Your task to perform on an android device: Show the shopping cart on bestbuy. Add "lg ultragear" to the cart on bestbuy Image 0: 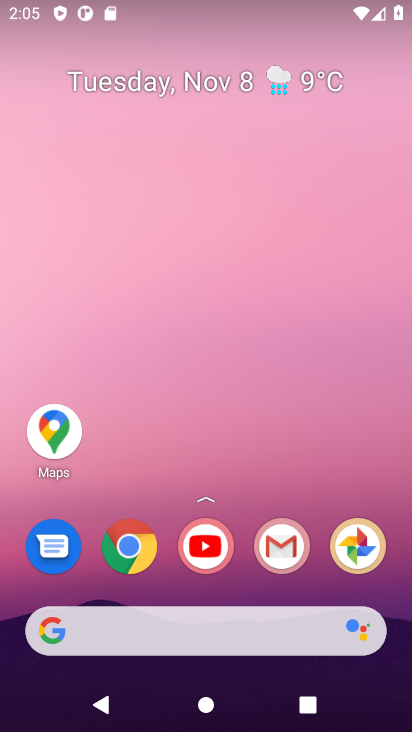
Step 0: click (129, 551)
Your task to perform on an android device: Show the shopping cart on bestbuy. Add "lg ultragear" to the cart on bestbuy Image 1: 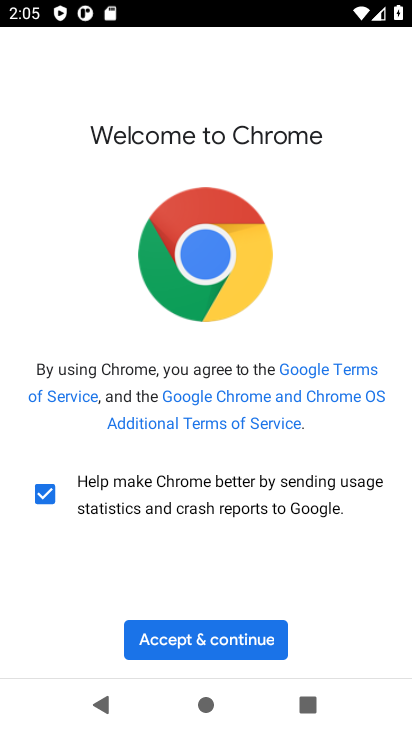
Step 1: click (236, 638)
Your task to perform on an android device: Show the shopping cart on bestbuy. Add "lg ultragear" to the cart on bestbuy Image 2: 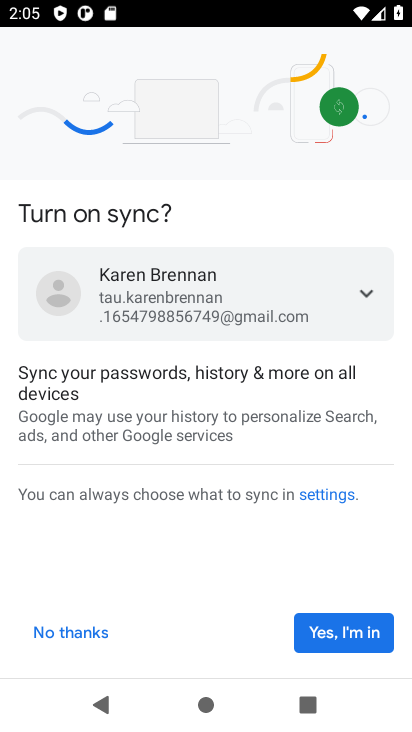
Step 2: click (338, 630)
Your task to perform on an android device: Show the shopping cart on bestbuy. Add "lg ultragear" to the cart on bestbuy Image 3: 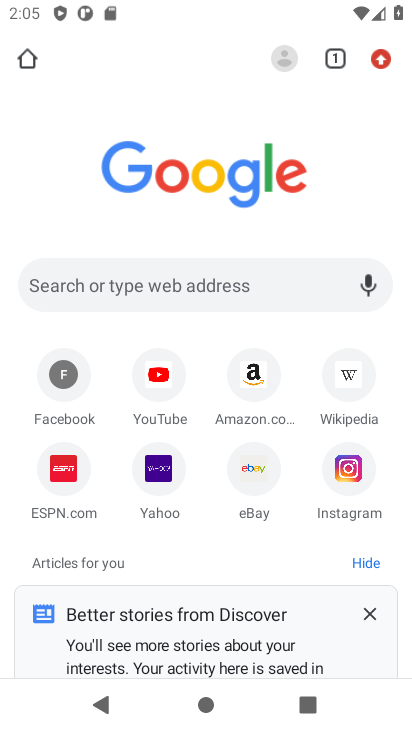
Step 3: click (280, 289)
Your task to perform on an android device: Show the shopping cart on bestbuy. Add "lg ultragear" to the cart on bestbuy Image 4: 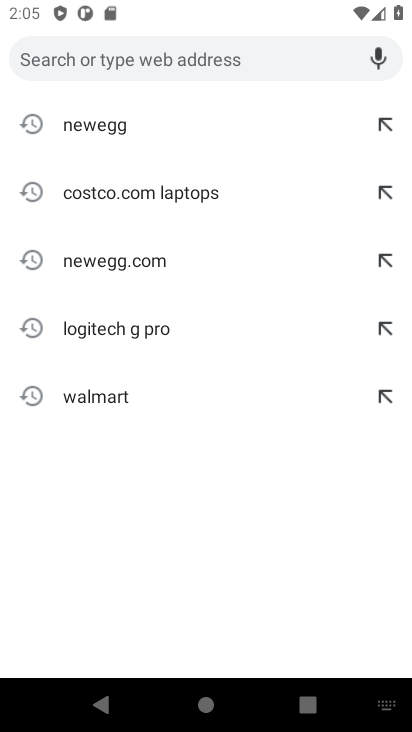
Step 4: type "bestbuy"
Your task to perform on an android device: Show the shopping cart on bestbuy. Add "lg ultragear" to the cart on bestbuy Image 5: 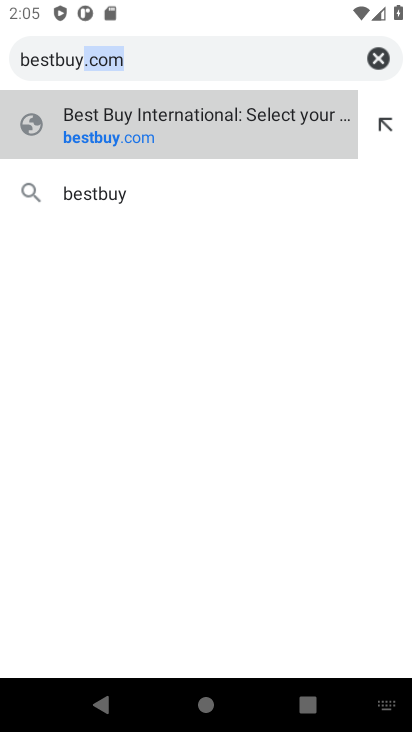
Step 5: click (114, 111)
Your task to perform on an android device: Show the shopping cart on bestbuy. Add "lg ultragear" to the cart on bestbuy Image 6: 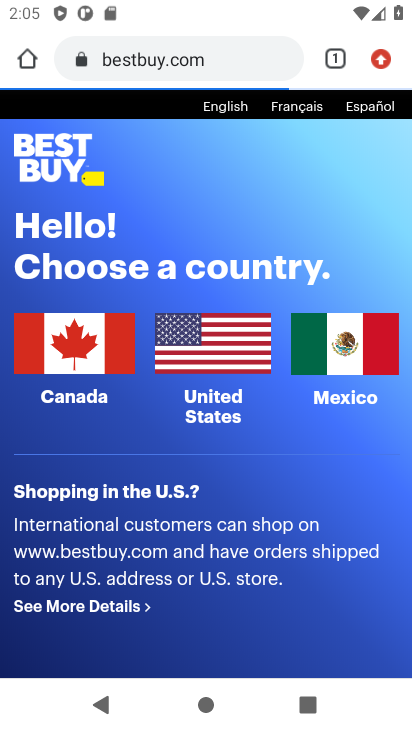
Step 6: click (236, 350)
Your task to perform on an android device: Show the shopping cart on bestbuy. Add "lg ultragear" to the cart on bestbuy Image 7: 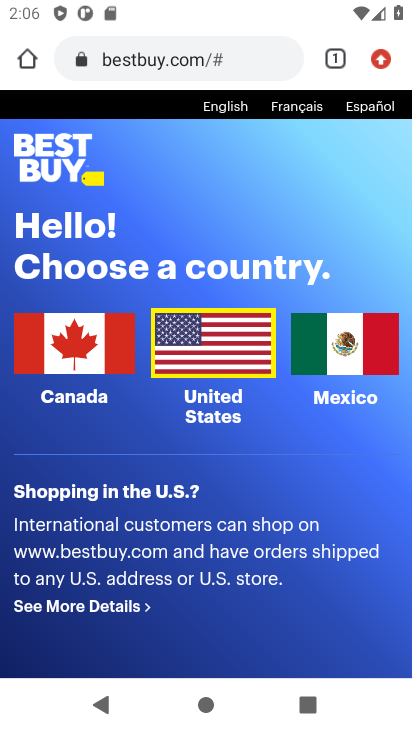
Step 7: click (177, 333)
Your task to perform on an android device: Show the shopping cart on bestbuy. Add "lg ultragear" to the cart on bestbuy Image 8: 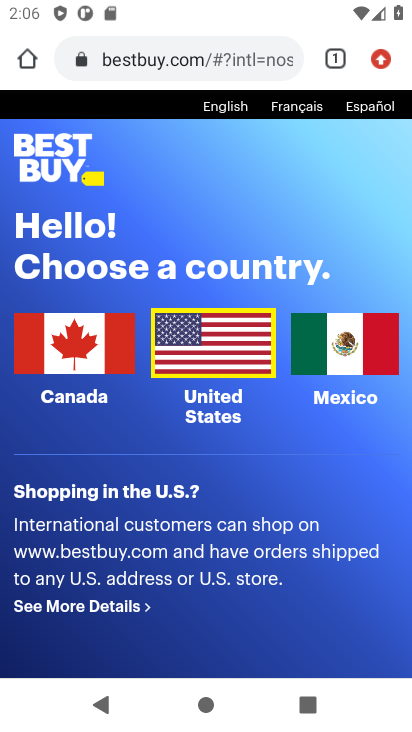
Step 8: click (226, 345)
Your task to perform on an android device: Show the shopping cart on bestbuy. Add "lg ultragear" to the cart on bestbuy Image 9: 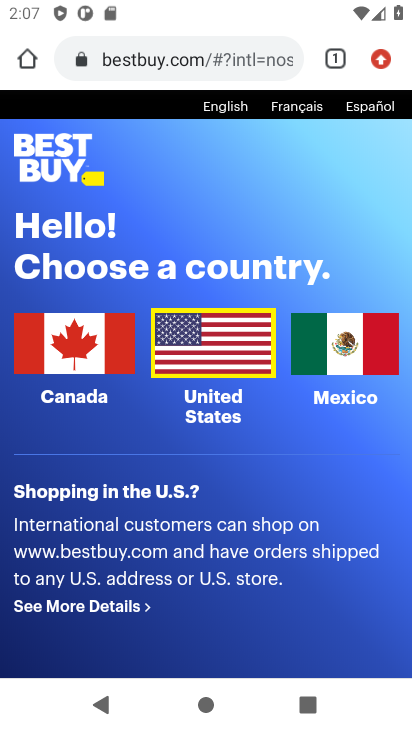
Step 9: click (225, 330)
Your task to perform on an android device: Show the shopping cart on bestbuy. Add "lg ultragear" to the cart on bestbuy Image 10: 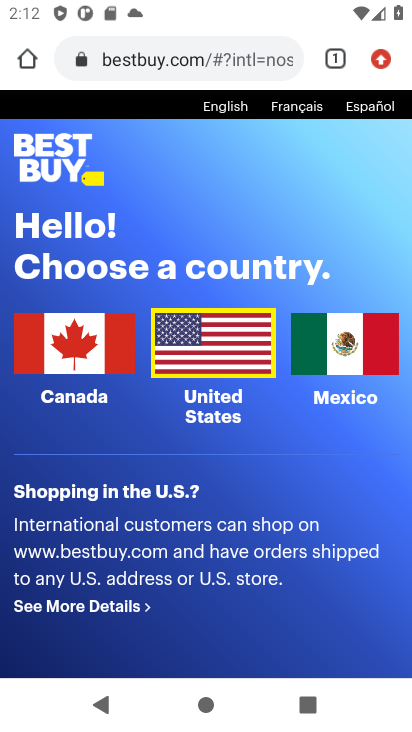
Step 10: task complete